Your task to perform on an android device: check storage Image 0: 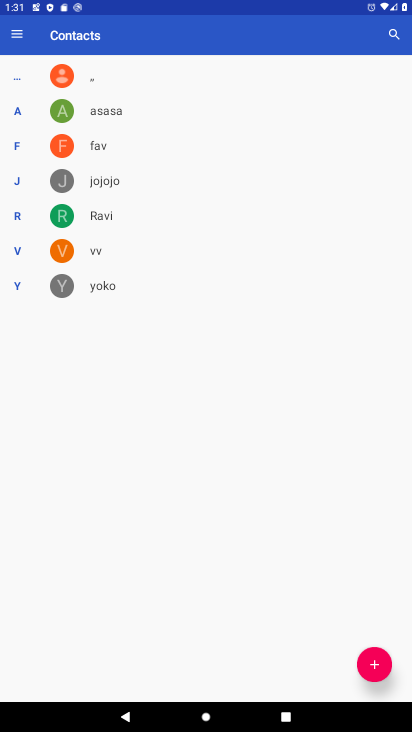
Step 0: press home button
Your task to perform on an android device: check storage Image 1: 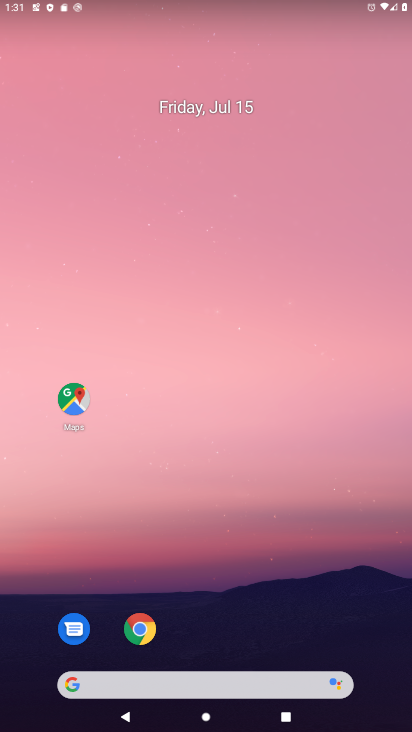
Step 1: drag from (270, 627) to (221, 140)
Your task to perform on an android device: check storage Image 2: 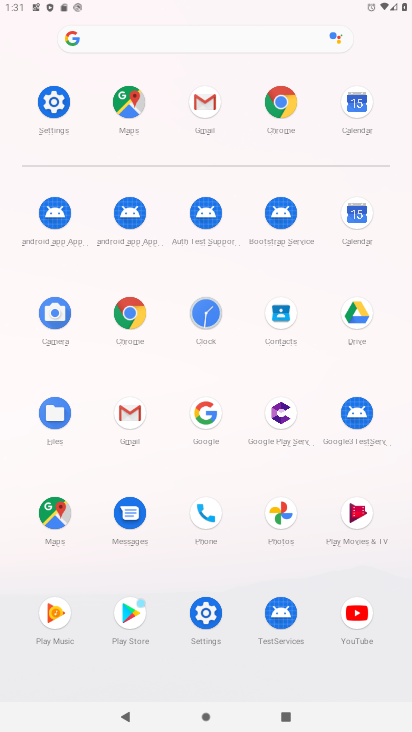
Step 2: click (42, 100)
Your task to perform on an android device: check storage Image 3: 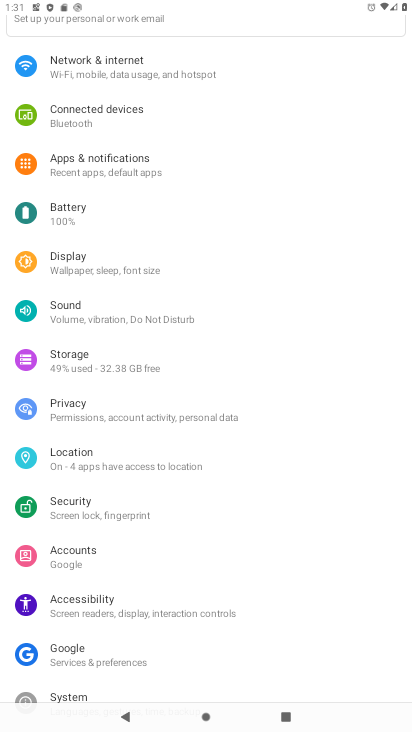
Step 3: click (108, 359)
Your task to perform on an android device: check storage Image 4: 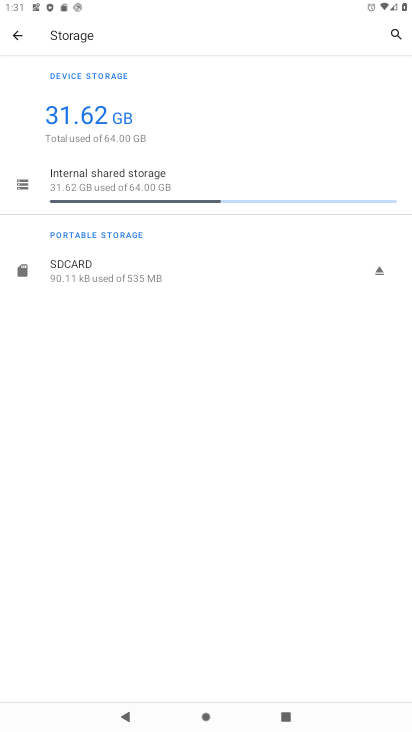
Step 4: task complete